Your task to perform on an android device: check android version Image 0: 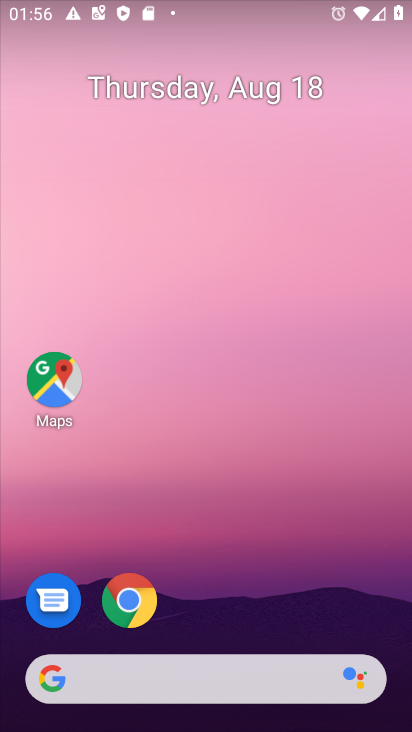
Step 0: press home button
Your task to perform on an android device: check android version Image 1: 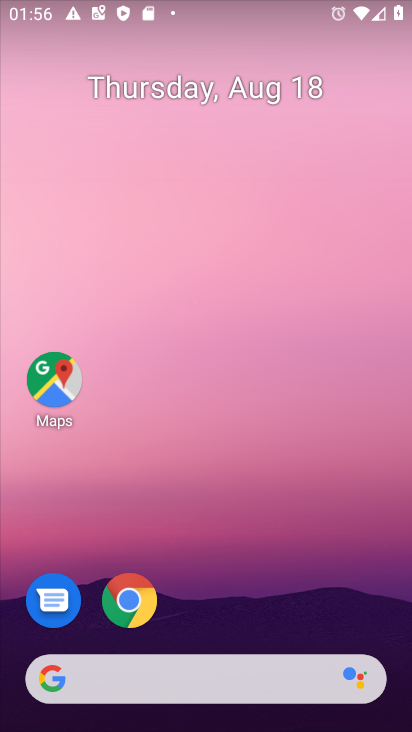
Step 1: drag from (277, 623) to (354, 76)
Your task to perform on an android device: check android version Image 2: 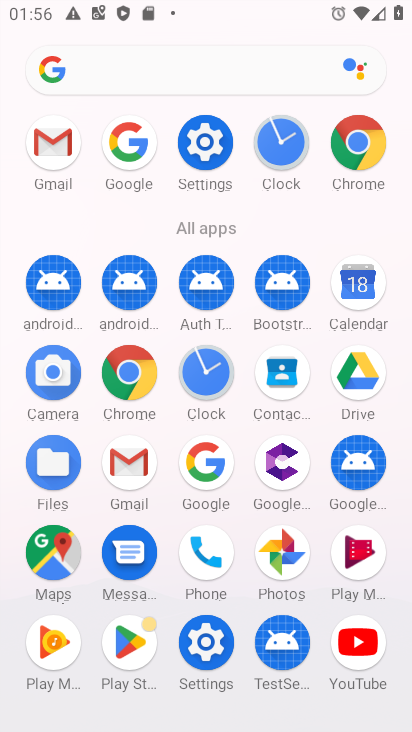
Step 2: click (216, 152)
Your task to perform on an android device: check android version Image 3: 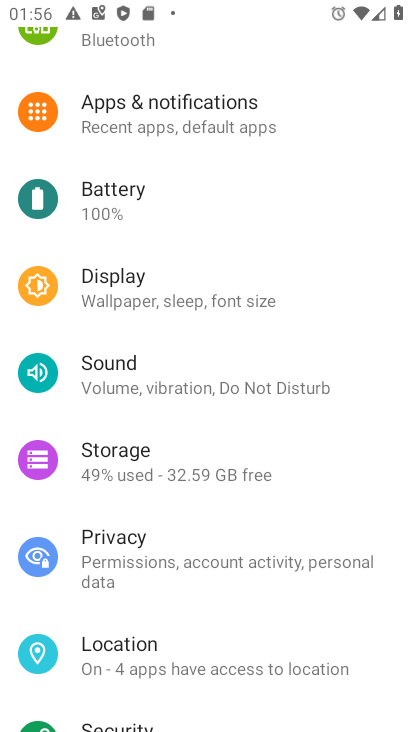
Step 3: drag from (207, 662) to (253, 247)
Your task to perform on an android device: check android version Image 4: 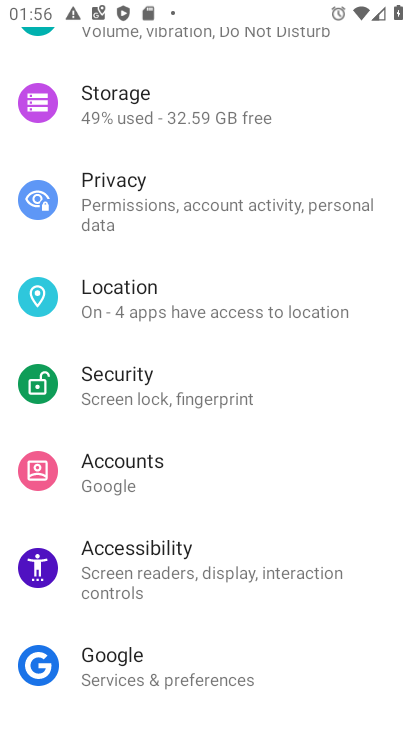
Step 4: drag from (192, 606) to (231, 296)
Your task to perform on an android device: check android version Image 5: 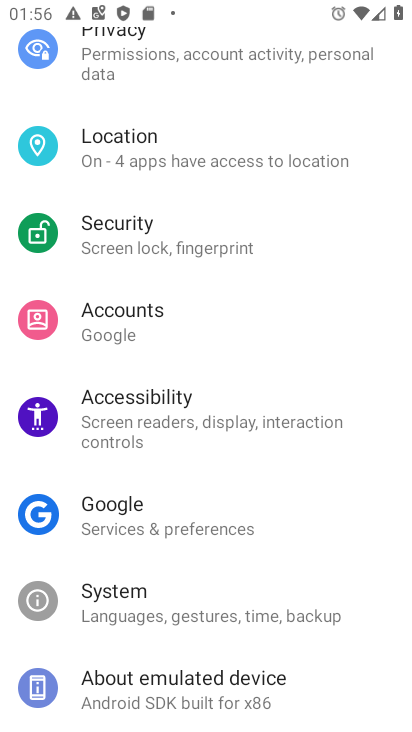
Step 5: click (154, 687)
Your task to perform on an android device: check android version Image 6: 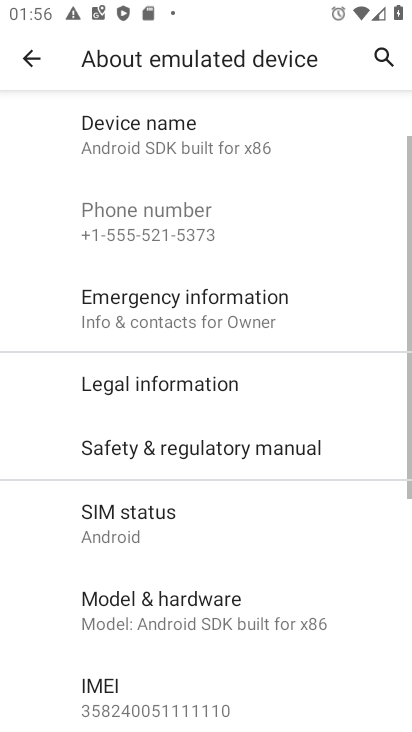
Step 6: drag from (252, 260) to (319, 21)
Your task to perform on an android device: check android version Image 7: 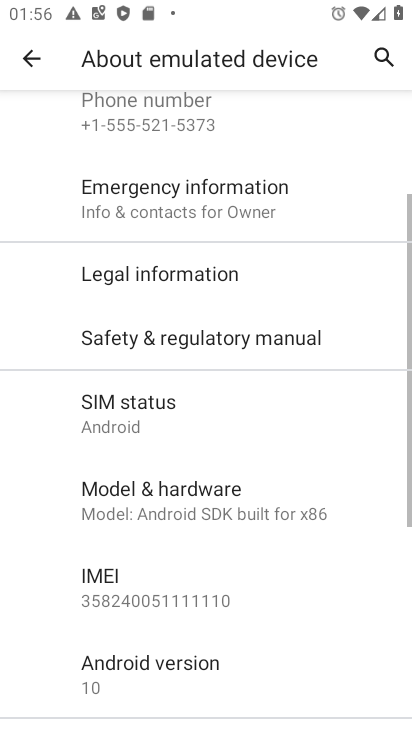
Step 7: click (127, 691)
Your task to perform on an android device: check android version Image 8: 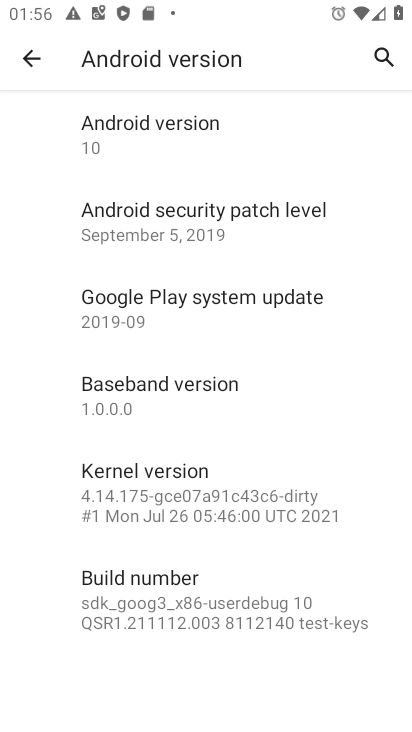
Step 8: task complete